Your task to perform on an android device: open the mobile data screen to see how much data has been used Image 0: 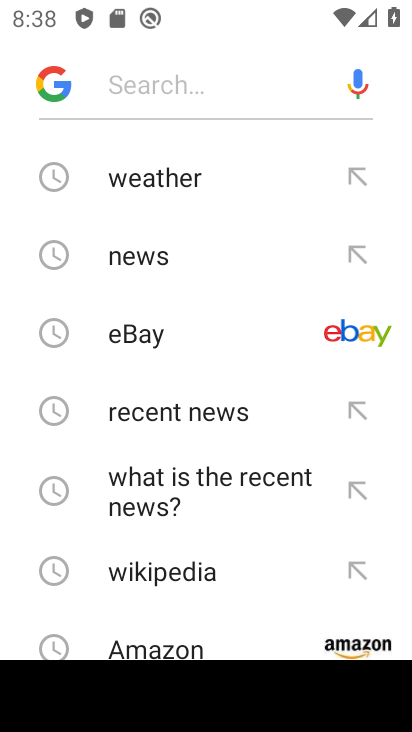
Step 0: press back button
Your task to perform on an android device: open the mobile data screen to see how much data has been used Image 1: 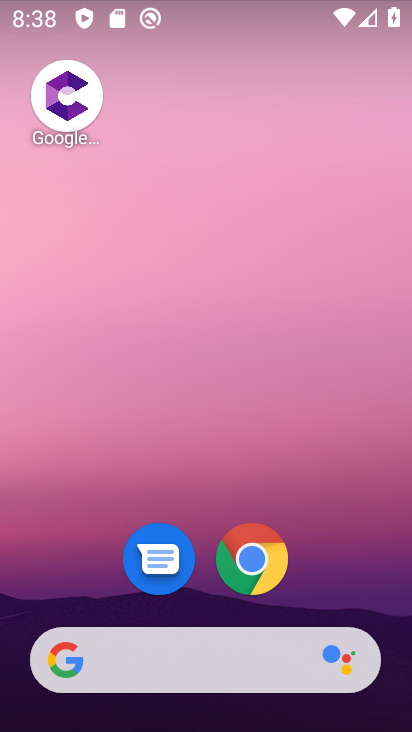
Step 1: drag from (372, 615) to (255, 46)
Your task to perform on an android device: open the mobile data screen to see how much data has been used Image 2: 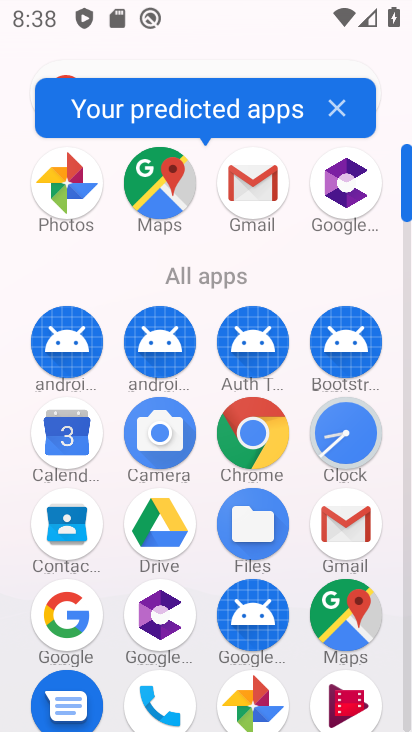
Step 2: click (407, 710)
Your task to perform on an android device: open the mobile data screen to see how much data has been used Image 3: 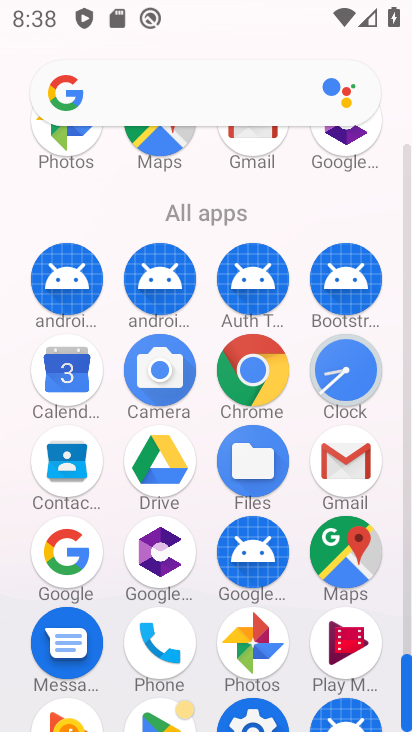
Step 3: click (269, 719)
Your task to perform on an android device: open the mobile data screen to see how much data has been used Image 4: 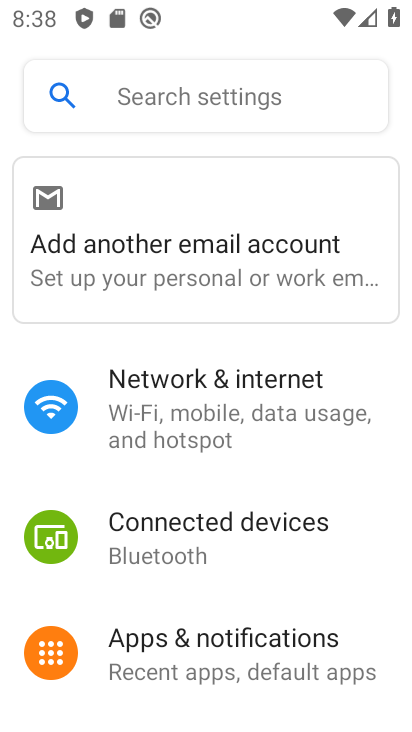
Step 4: click (235, 425)
Your task to perform on an android device: open the mobile data screen to see how much data has been used Image 5: 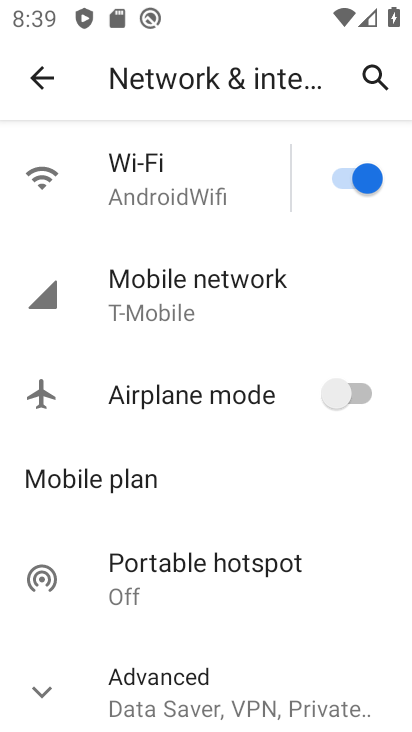
Step 5: click (225, 321)
Your task to perform on an android device: open the mobile data screen to see how much data has been used Image 6: 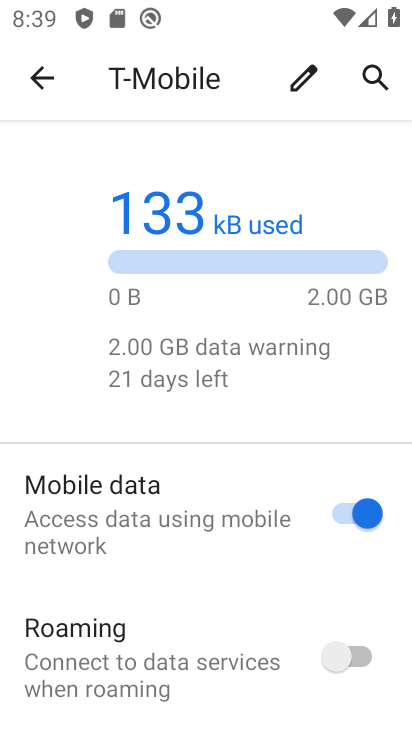
Step 6: task complete